Your task to perform on an android device: Open privacy settings Image 0: 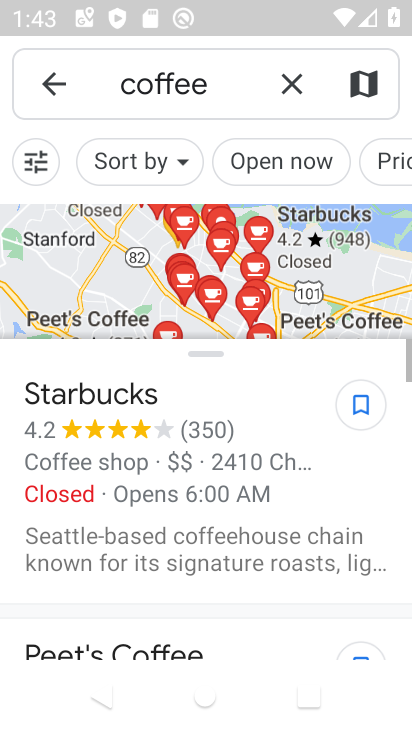
Step 0: press home button
Your task to perform on an android device: Open privacy settings Image 1: 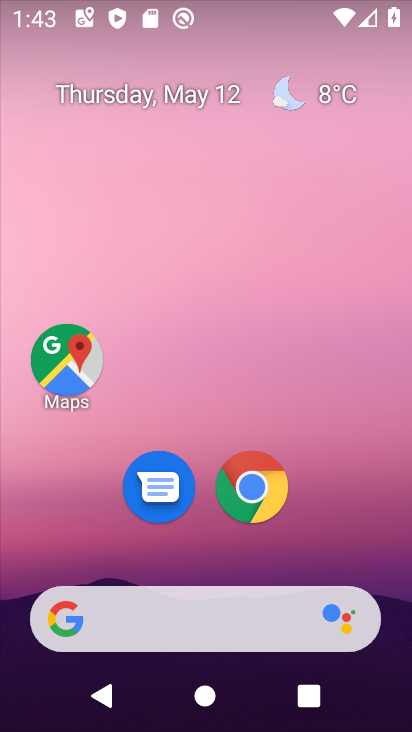
Step 1: drag from (266, 565) to (223, 42)
Your task to perform on an android device: Open privacy settings Image 2: 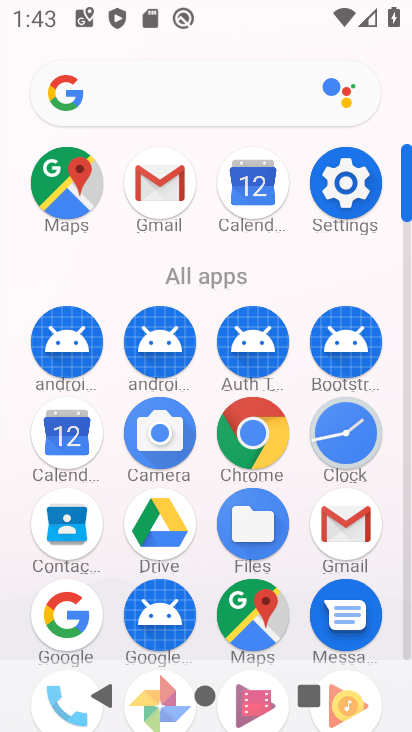
Step 2: click (343, 191)
Your task to perform on an android device: Open privacy settings Image 3: 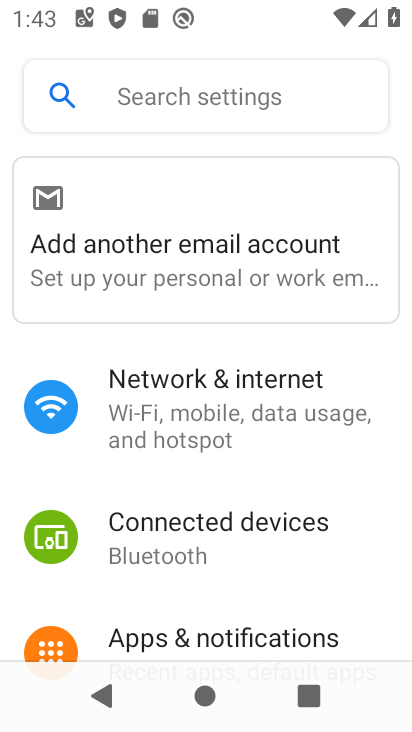
Step 3: drag from (178, 573) to (151, 206)
Your task to perform on an android device: Open privacy settings Image 4: 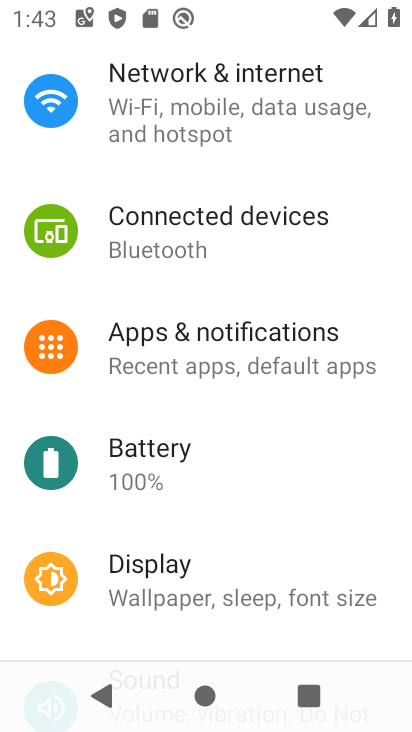
Step 4: drag from (180, 544) to (158, 277)
Your task to perform on an android device: Open privacy settings Image 5: 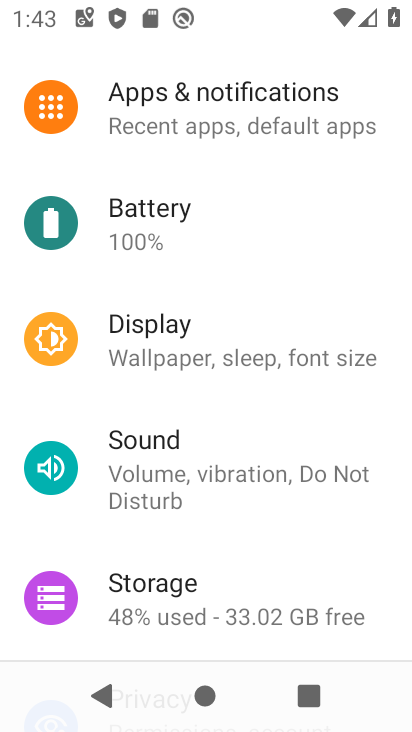
Step 5: drag from (184, 582) to (131, 327)
Your task to perform on an android device: Open privacy settings Image 6: 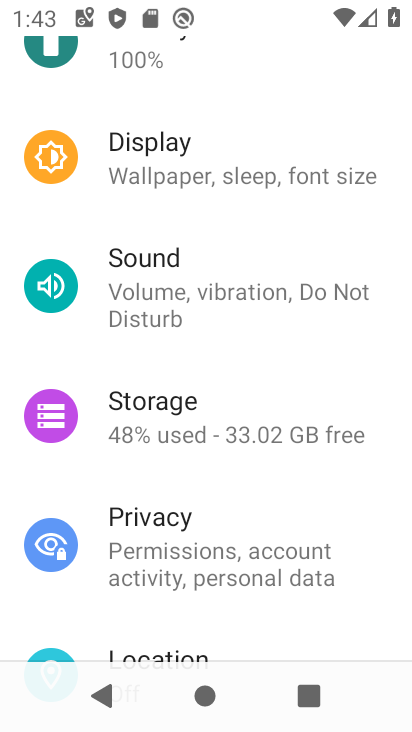
Step 6: click (142, 567)
Your task to perform on an android device: Open privacy settings Image 7: 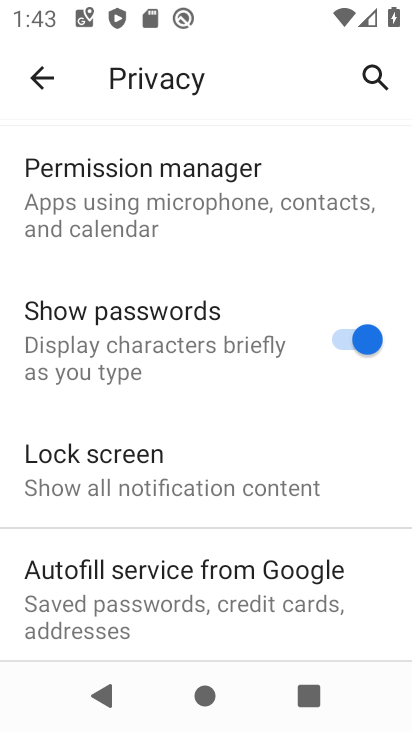
Step 7: task complete